Your task to perform on an android device: Go to network settings Image 0: 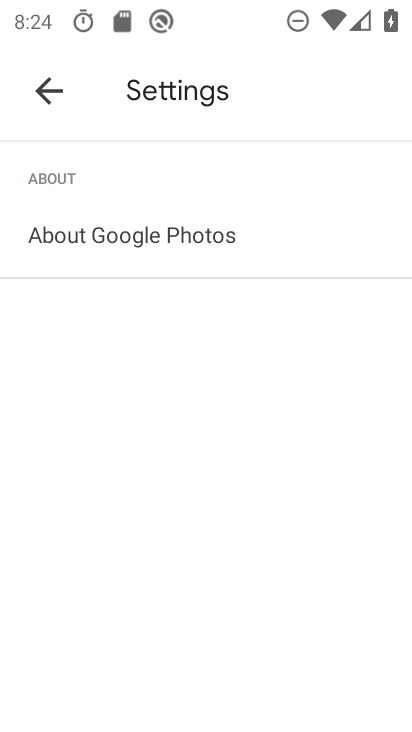
Step 0: press home button
Your task to perform on an android device: Go to network settings Image 1: 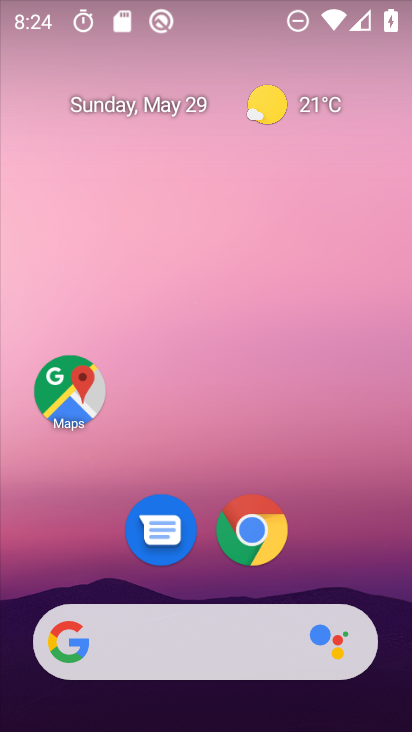
Step 1: drag from (224, 669) to (240, 178)
Your task to perform on an android device: Go to network settings Image 2: 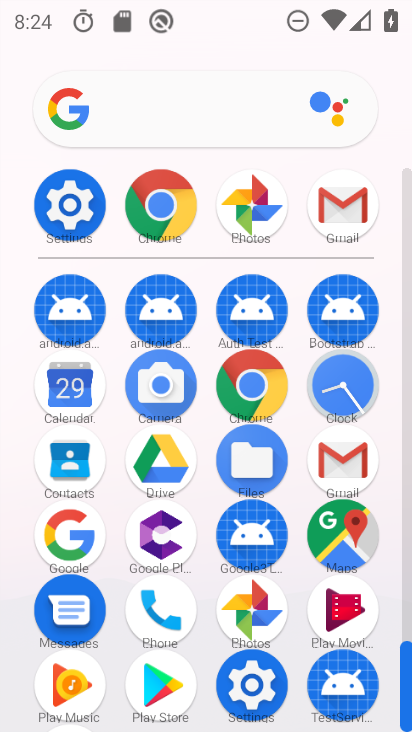
Step 2: click (61, 221)
Your task to perform on an android device: Go to network settings Image 3: 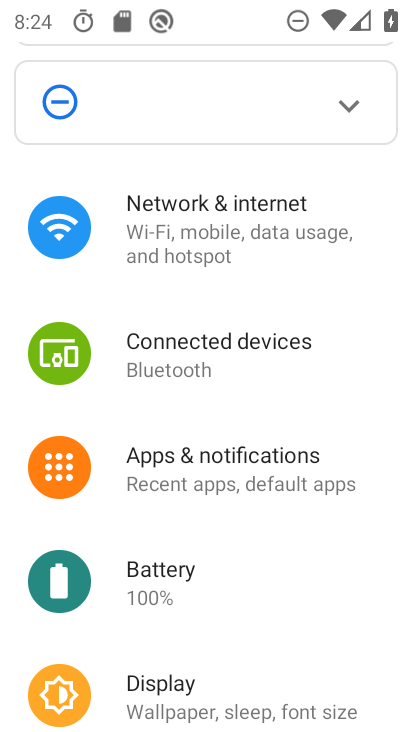
Step 3: click (208, 258)
Your task to perform on an android device: Go to network settings Image 4: 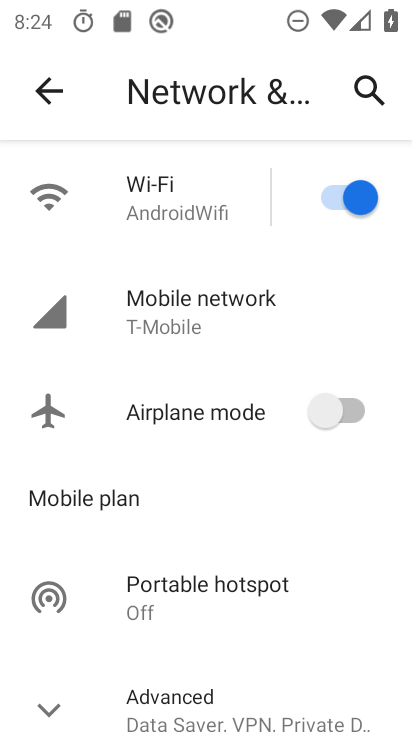
Step 4: task complete